Your task to perform on an android device: Open Google Maps and go to "Timeline" Image 0: 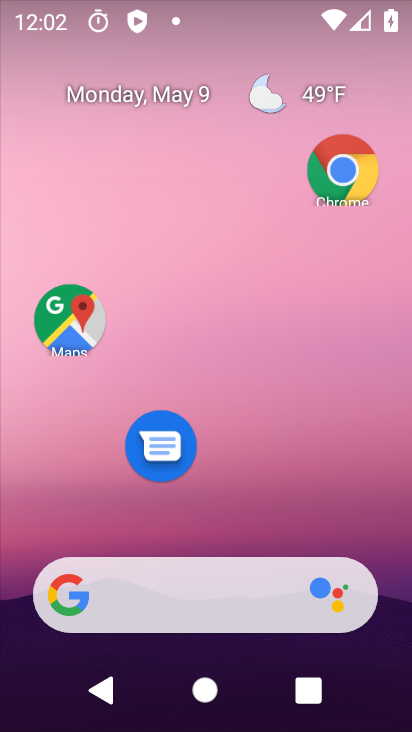
Step 0: click (57, 324)
Your task to perform on an android device: Open Google Maps and go to "Timeline" Image 1: 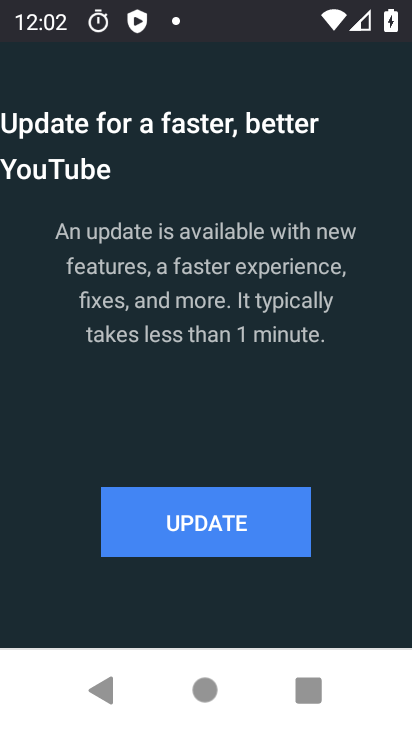
Step 1: click (58, 324)
Your task to perform on an android device: Open Google Maps and go to "Timeline" Image 2: 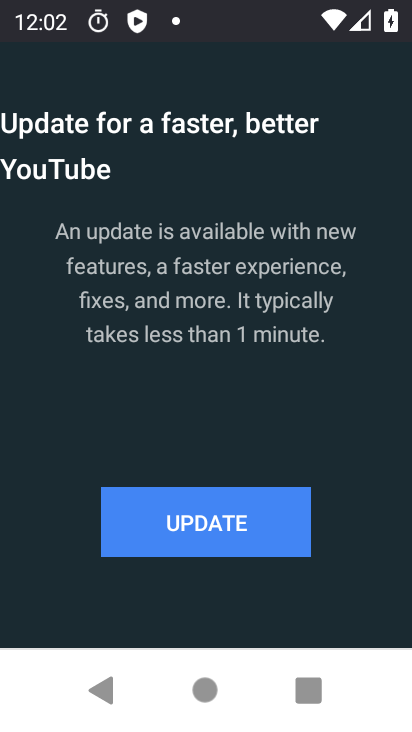
Step 2: click (108, 671)
Your task to perform on an android device: Open Google Maps and go to "Timeline" Image 3: 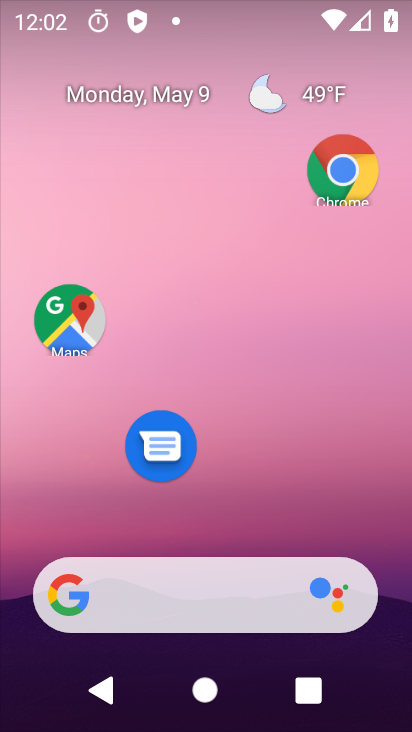
Step 3: click (62, 339)
Your task to perform on an android device: Open Google Maps and go to "Timeline" Image 4: 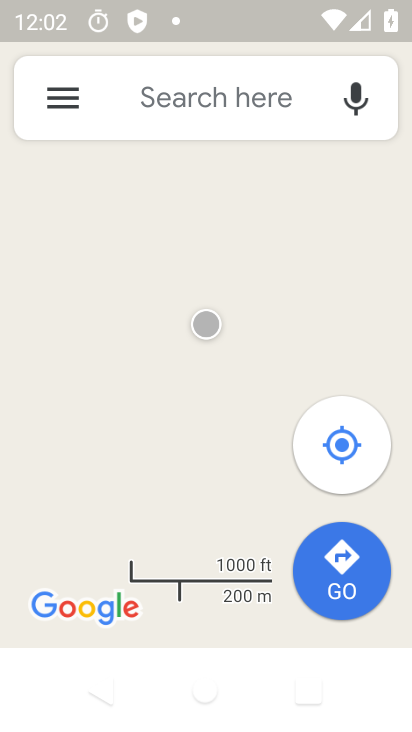
Step 4: click (53, 85)
Your task to perform on an android device: Open Google Maps and go to "Timeline" Image 5: 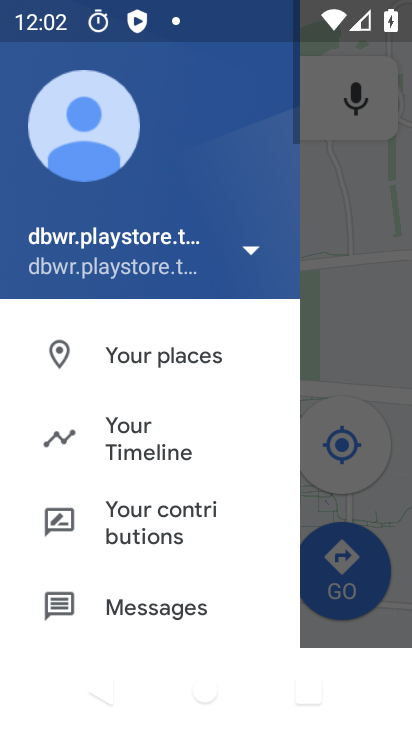
Step 5: drag from (25, 516) to (132, 324)
Your task to perform on an android device: Open Google Maps and go to "Timeline" Image 6: 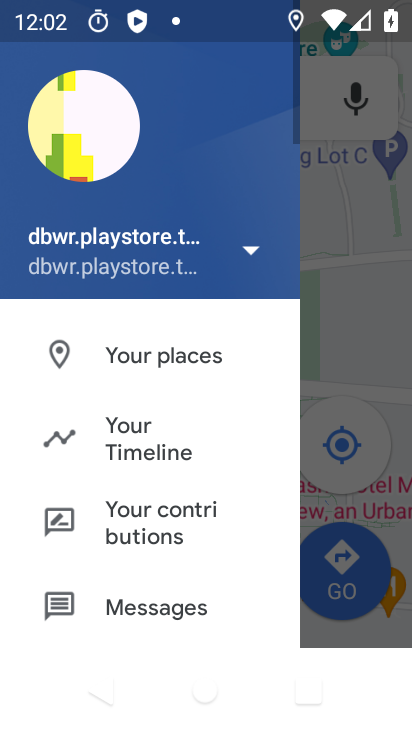
Step 6: drag from (139, 526) to (210, 308)
Your task to perform on an android device: Open Google Maps and go to "Timeline" Image 7: 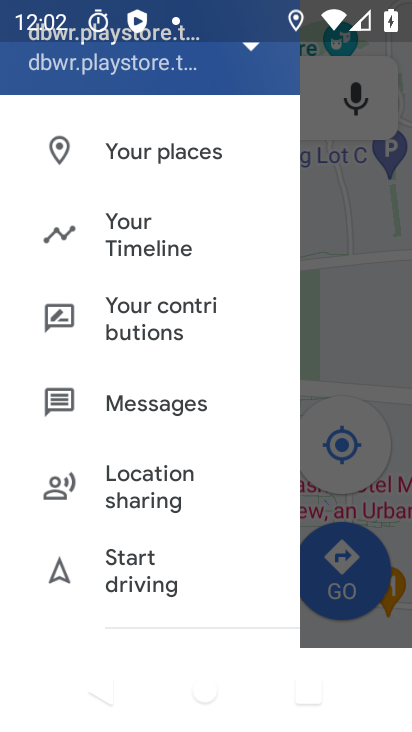
Step 7: drag from (141, 577) to (210, 320)
Your task to perform on an android device: Open Google Maps and go to "Timeline" Image 8: 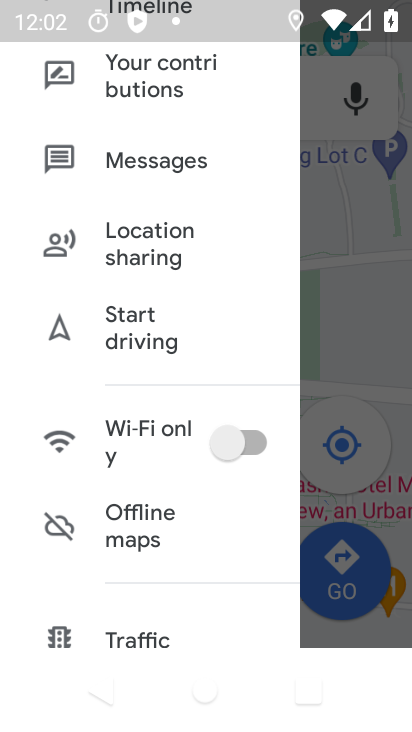
Step 8: drag from (90, 553) to (193, 225)
Your task to perform on an android device: Open Google Maps and go to "Timeline" Image 9: 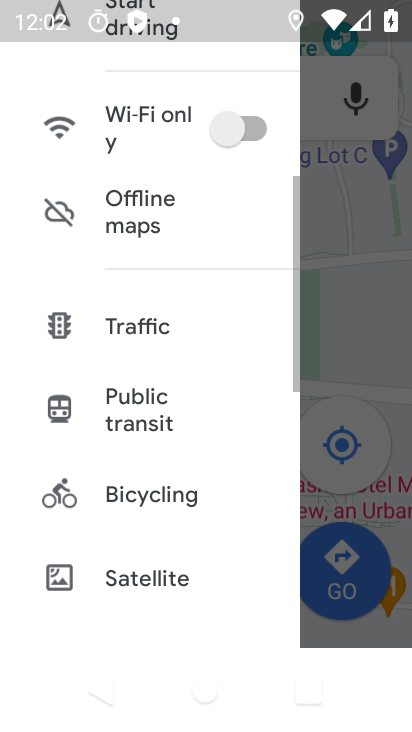
Step 9: drag from (136, 512) to (221, 166)
Your task to perform on an android device: Open Google Maps and go to "Timeline" Image 10: 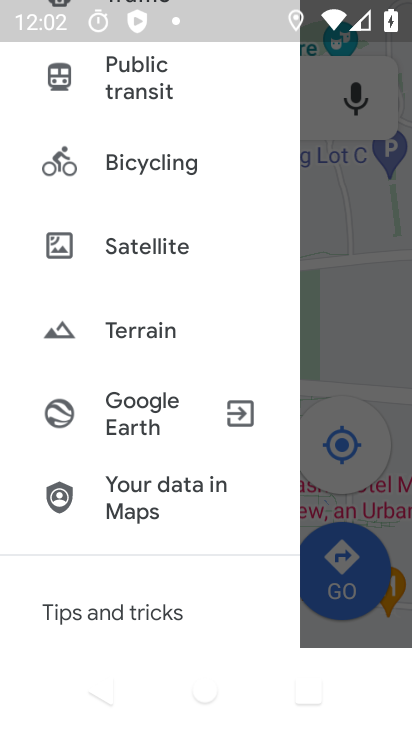
Step 10: drag from (129, 490) to (160, 229)
Your task to perform on an android device: Open Google Maps and go to "Timeline" Image 11: 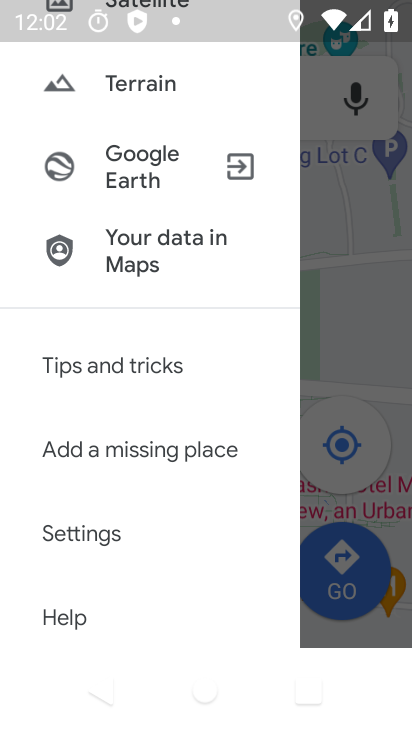
Step 11: drag from (126, 490) to (172, 273)
Your task to perform on an android device: Open Google Maps and go to "Timeline" Image 12: 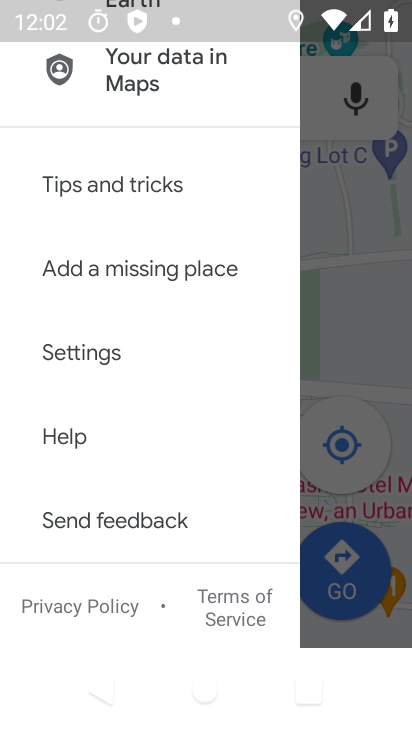
Step 12: click (101, 356)
Your task to perform on an android device: Open Google Maps and go to "Timeline" Image 13: 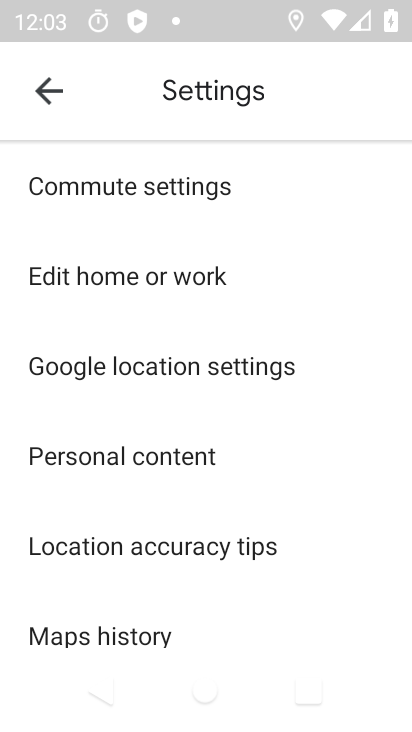
Step 13: drag from (97, 460) to (167, 211)
Your task to perform on an android device: Open Google Maps and go to "Timeline" Image 14: 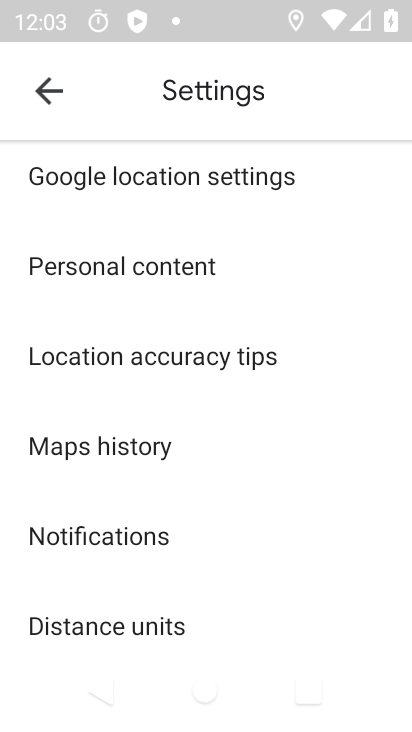
Step 14: drag from (127, 600) to (193, 391)
Your task to perform on an android device: Open Google Maps and go to "Timeline" Image 15: 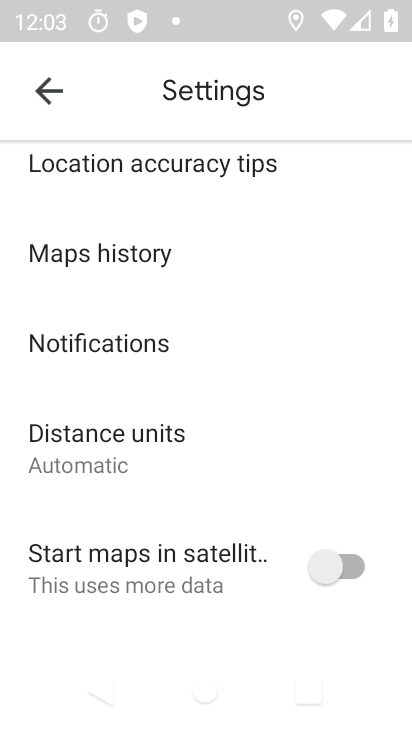
Step 15: drag from (164, 472) to (264, 237)
Your task to perform on an android device: Open Google Maps and go to "Timeline" Image 16: 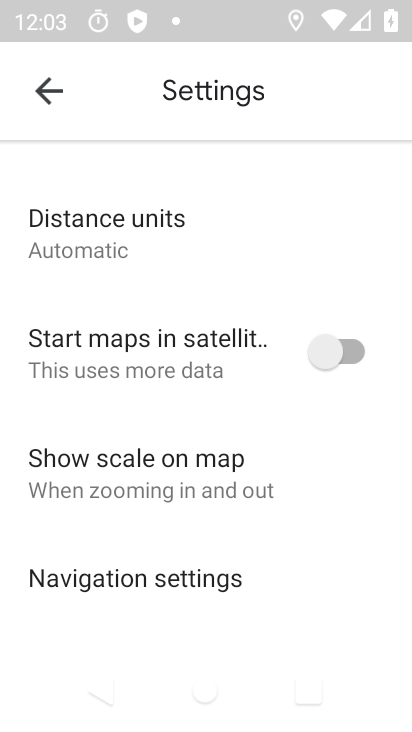
Step 16: drag from (151, 527) to (250, 187)
Your task to perform on an android device: Open Google Maps and go to "Timeline" Image 17: 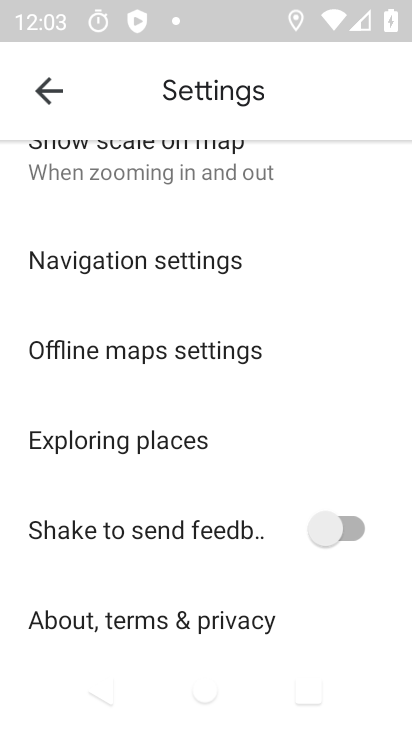
Step 17: drag from (159, 450) to (273, 162)
Your task to perform on an android device: Open Google Maps and go to "Timeline" Image 18: 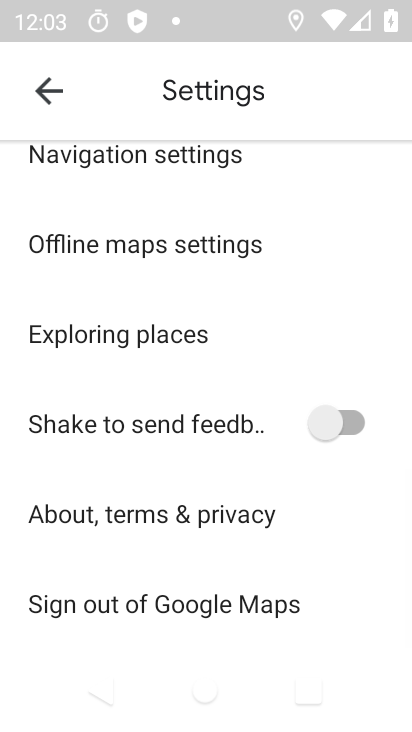
Step 18: drag from (63, 565) to (199, 202)
Your task to perform on an android device: Open Google Maps and go to "Timeline" Image 19: 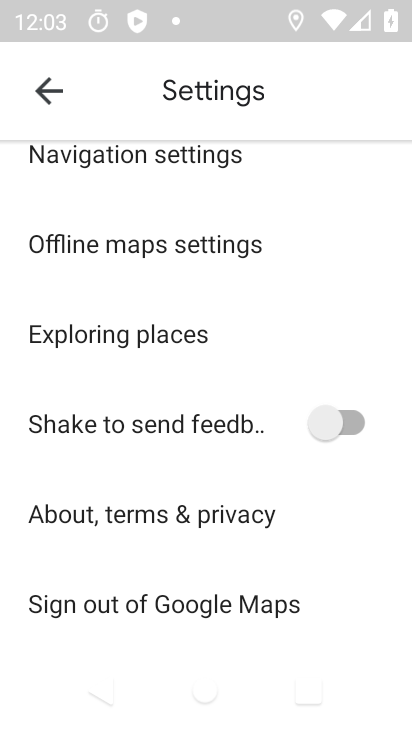
Step 19: click (42, 80)
Your task to perform on an android device: Open Google Maps and go to "Timeline" Image 20: 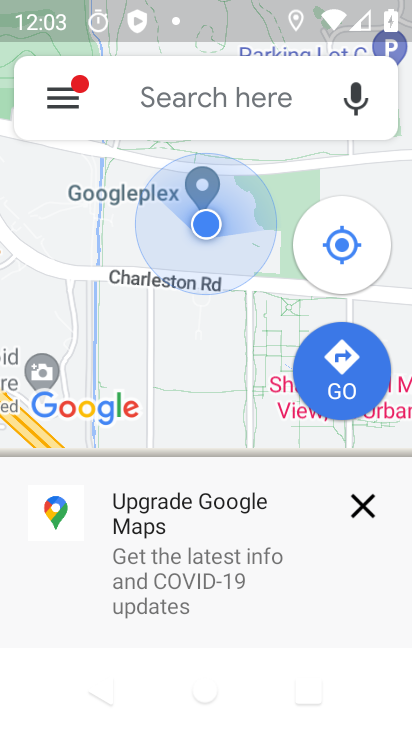
Step 20: click (57, 89)
Your task to perform on an android device: Open Google Maps and go to "Timeline" Image 21: 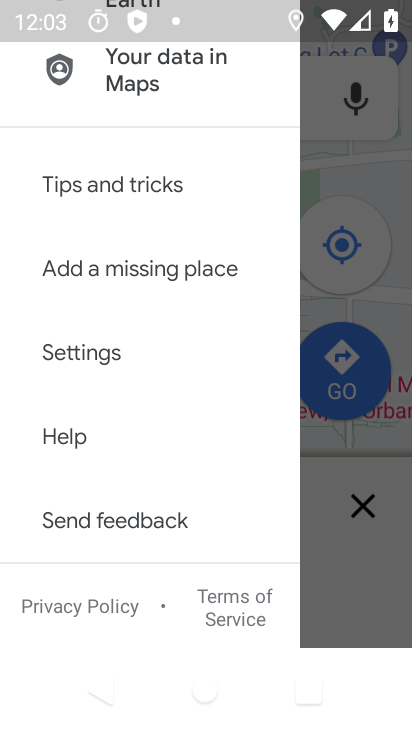
Step 21: drag from (66, 507) to (180, 190)
Your task to perform on an android device: Open Google Maps and go to "Timeline" Image 22: 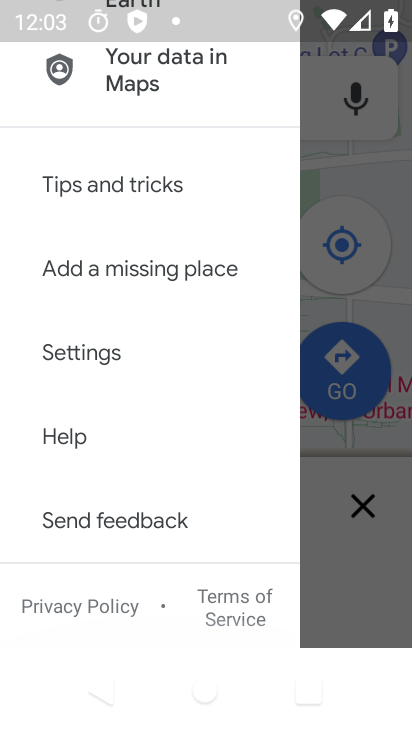
Step 22: drag from (176, 153) to (120, 455)
Your task to perform on an android device: Open Google Maps and go to "Timeline" Image 23: 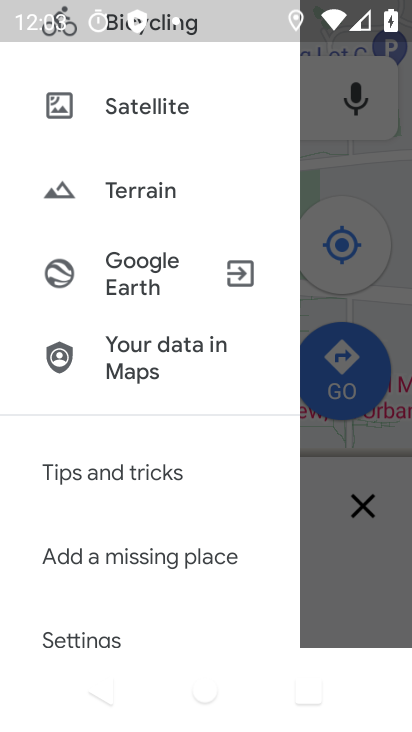
Step 23: drag from (108, 271) to (26, 570)
Your task to perform on an android device: Open Google Maps and go to "Timeline" Image 24: 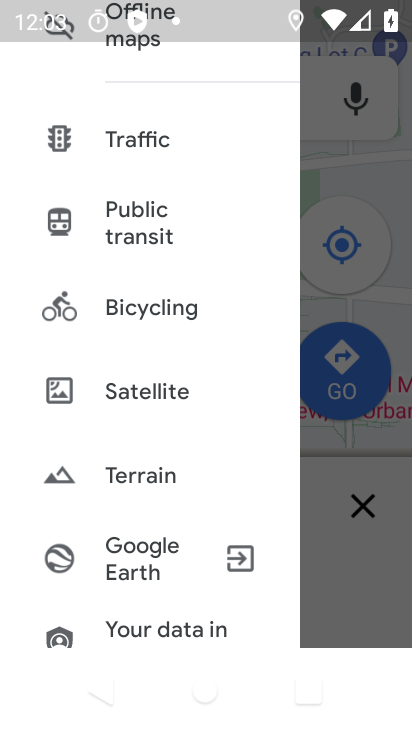
Step 24: drag from (149, 235) to (54, 624)
Your task to perform on an android device: Open Google Maps and go to "Timeline" Image 25: 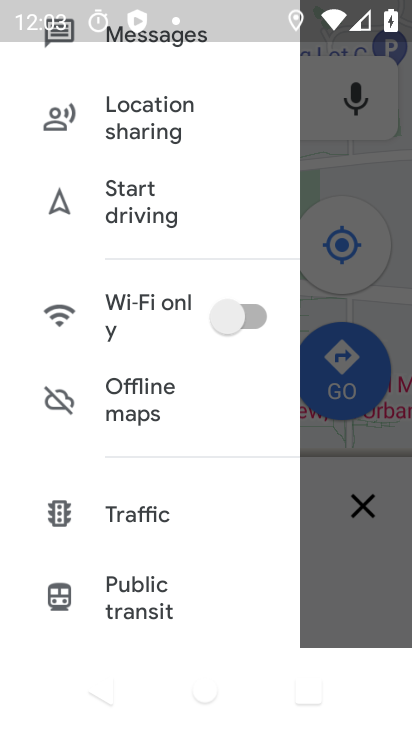
Step 25: drag from (145, 200) to (30, 622)
Your task to perform on an android device: Open Google Maps and go to "Timeline" Image 26: 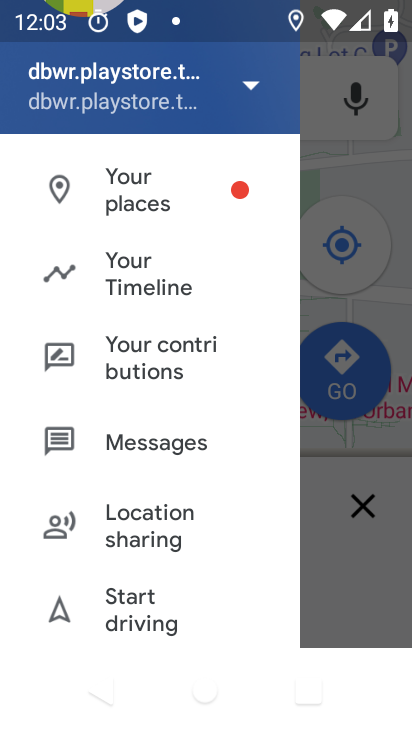
Step 26: click (140, 285)
Your task to perform on an android device: Open Google Maps and go to "Timeline" Image 27: 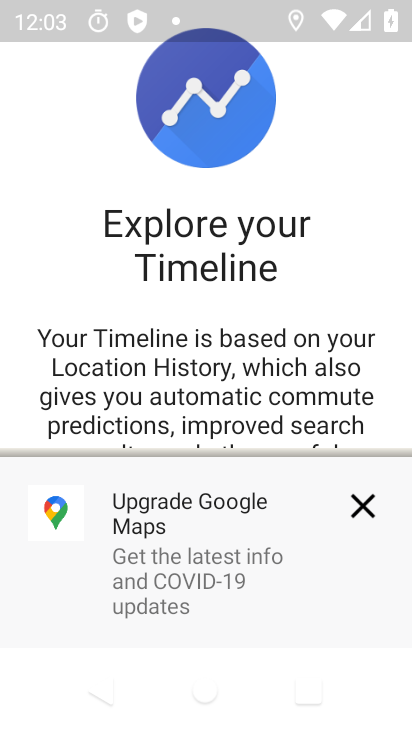
Step 27: click (374, 504)
Your task to perform on an android device: Open Google Maps and go to "Timeline" Image 28: 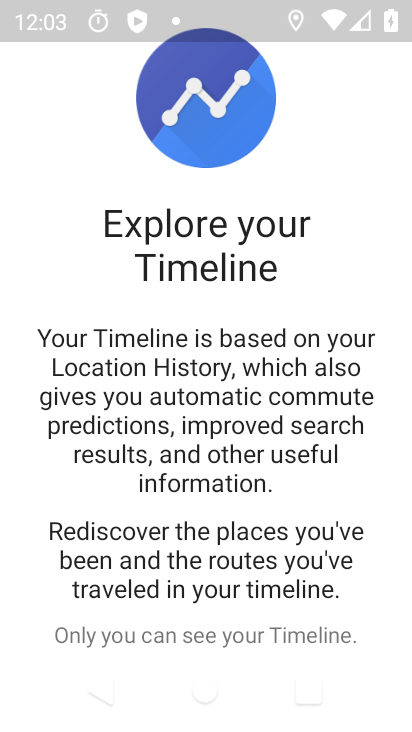
Step 28: task complete